Your task to perform on an android device: turn off translation in the chrome app Image 0: 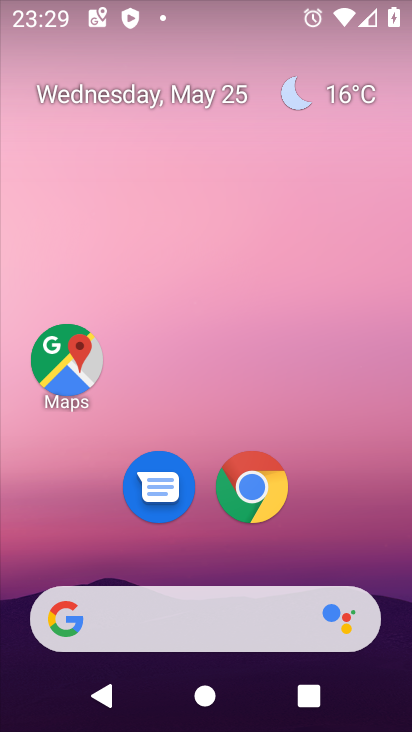
Step 0: click (245, 497)
Your task to perform on an android device: turn off translation in the chrome app Image 1: 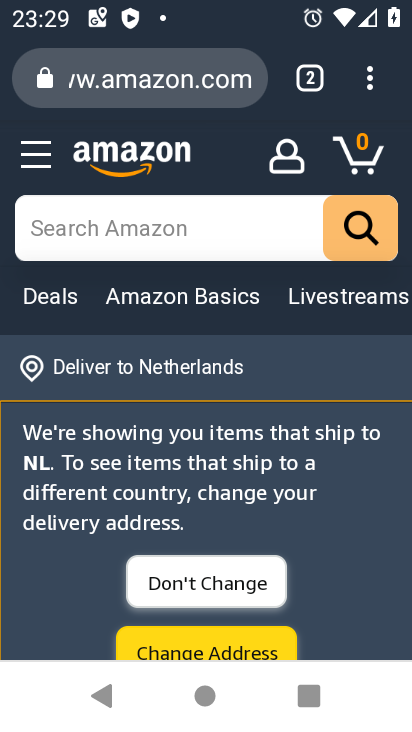
Step 1: click (362, 82)
Your task to perform on an android device: turn off translation in the chrome app Image 2: 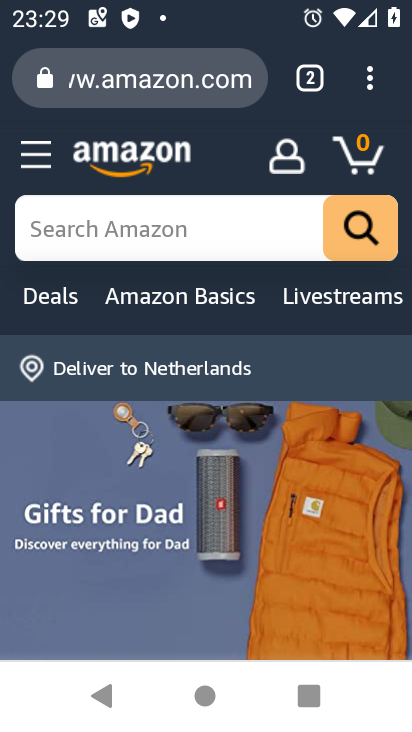
Step 2: click (379, 78)
Your task to perform on an android device: turn off translation in the chrome app Image 3: 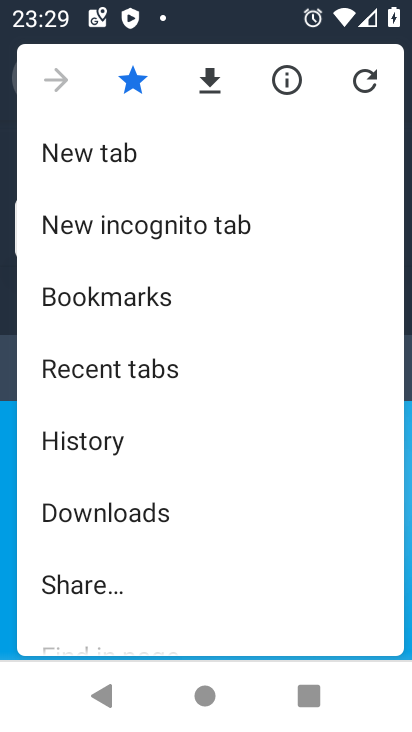
Step 3: drag from (195, 603) to (227, 122)
Your task to perform on an android device: turn off translation in the chrome app Image 4: 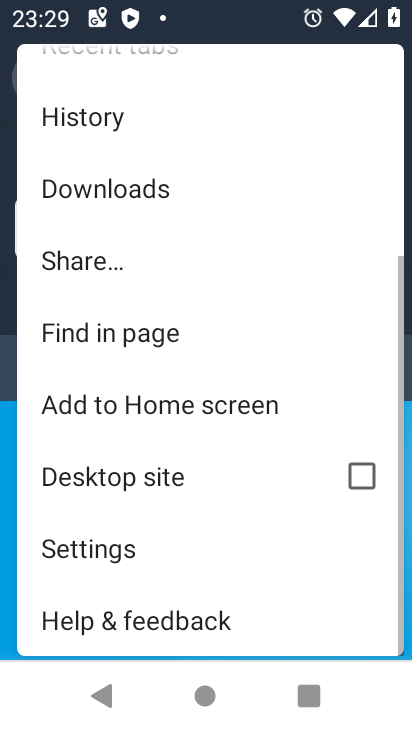
Step 4: click (108, 549)
Your task to perform on an android device: turn off translation in the chrome app Image 5: 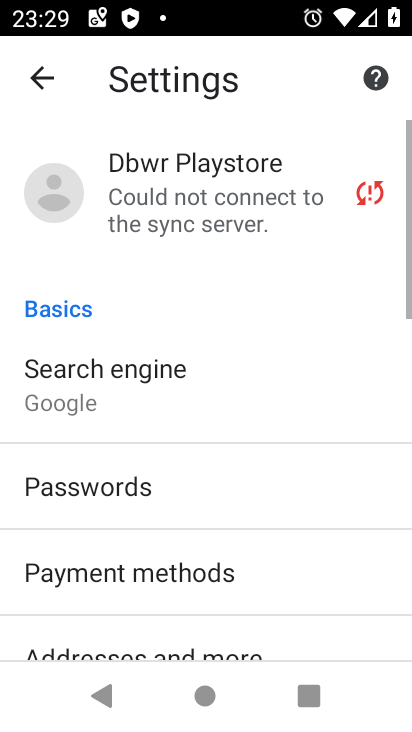
Step 5: drag from (222, 556) to (179, 118)
Your task to perform on an android device: turn off translation in the chrome app Image 6: 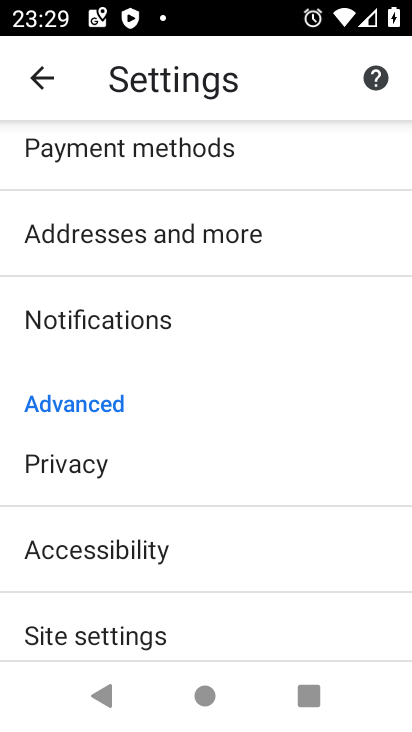
Step 6: drag from (340, 547) to (282, 23)
Your task to perform on an android device: turn off translation in the chrome app Image 7: 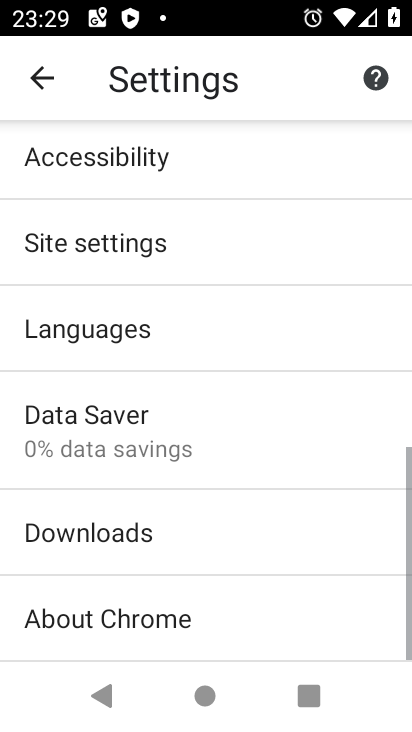
Step 7: click (212, 319)
Your task to perform on an android device: turn off translation in the chrome app Image 8: 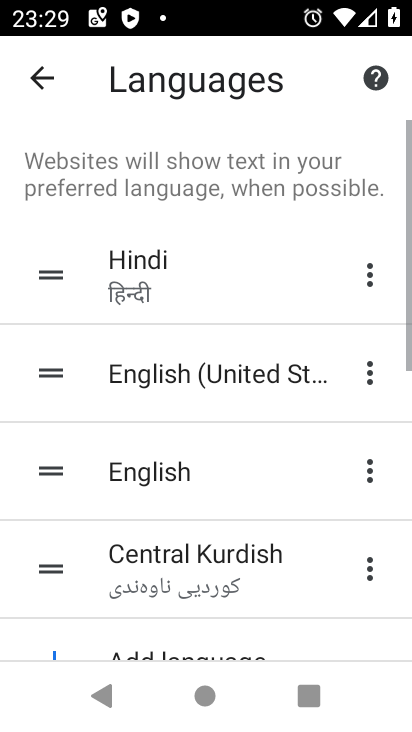
Step 8: task complete